Your task to perform on an android device: change text size in settings app Image 0: 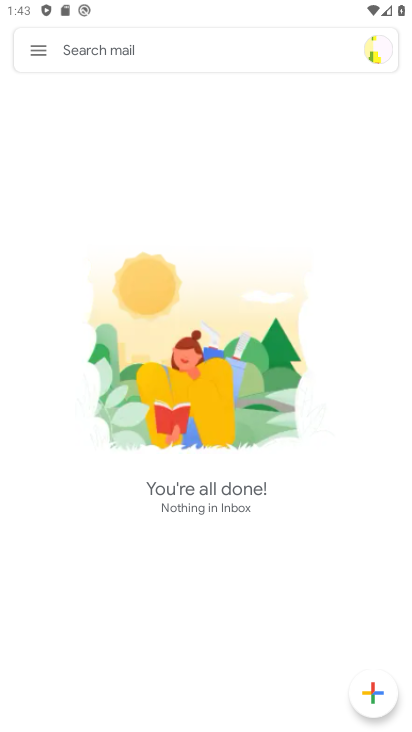
Step 0: press home button
Your task to perform on an android device: change text size in settings app Image 1: 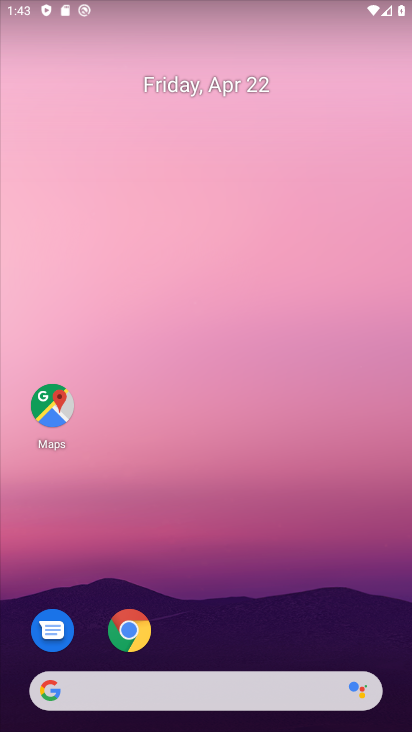
Step 1: drag from (193, 614) to (241, 141)
Your task to perform on an android device: change text size in settings app Image 2: 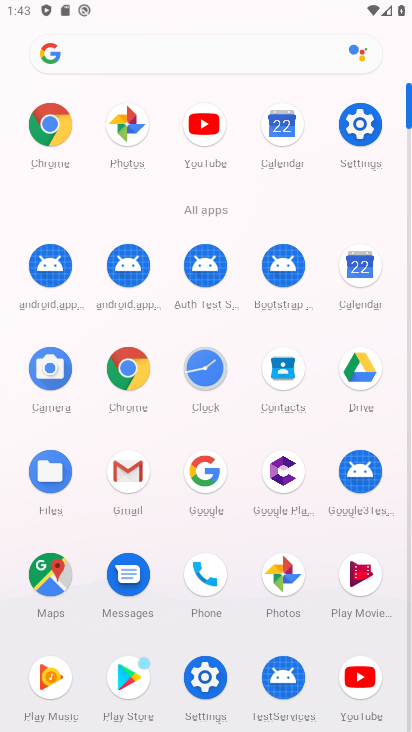
Step 2: click (370, 124)
Your task to perform on an android device: change text size in settings app Image 3: 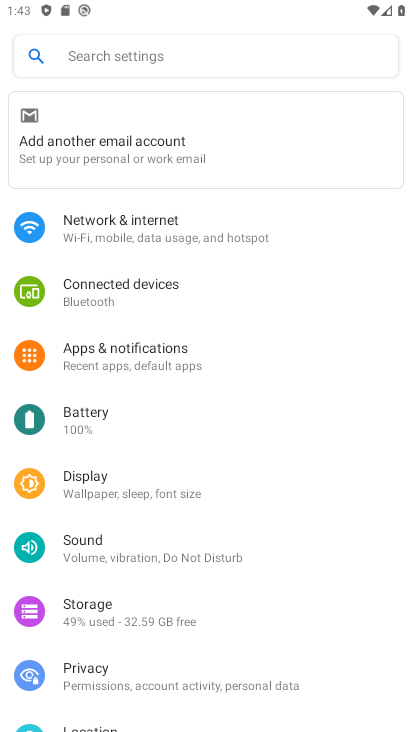
Step 3: click (148, 488)
Your task to perform on an android device: change text size in settings app Image 4: 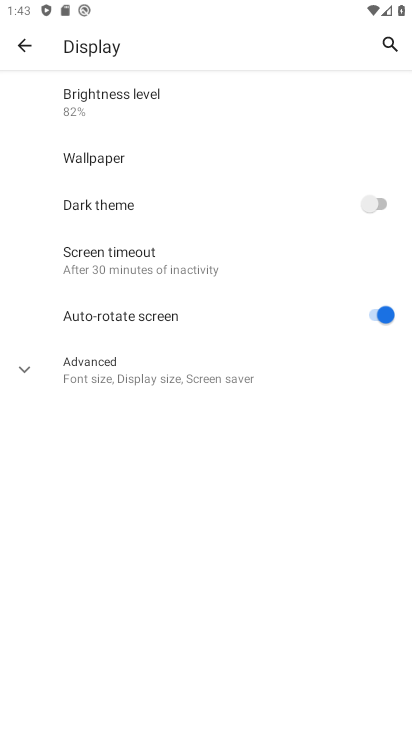
Step 4: click (23, 372)
Your task to perform on an android device: change text size in settings app Image 5: 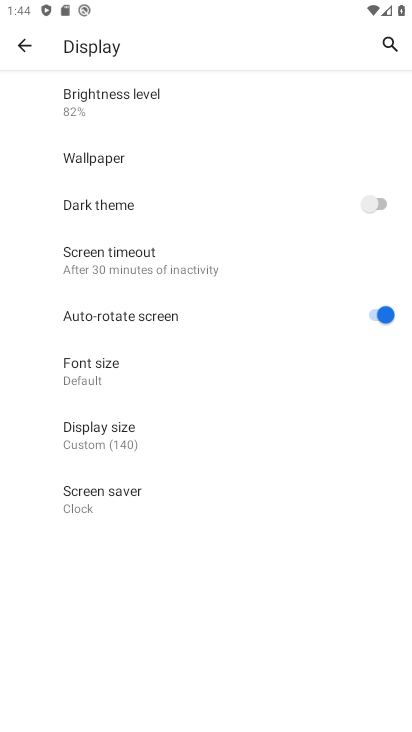
Step 5: click (112, 373)
Your task to perform on an android device: change text size in settings app Image 6: 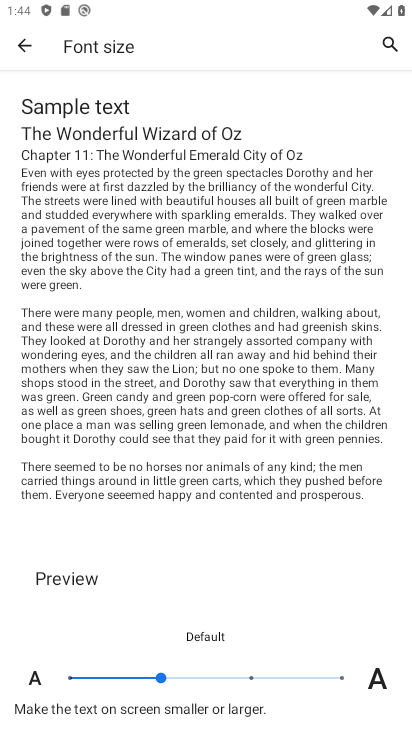
Step 6: click (69, 679)
Your task to perform on an android device: change text size in settings app Image 7: 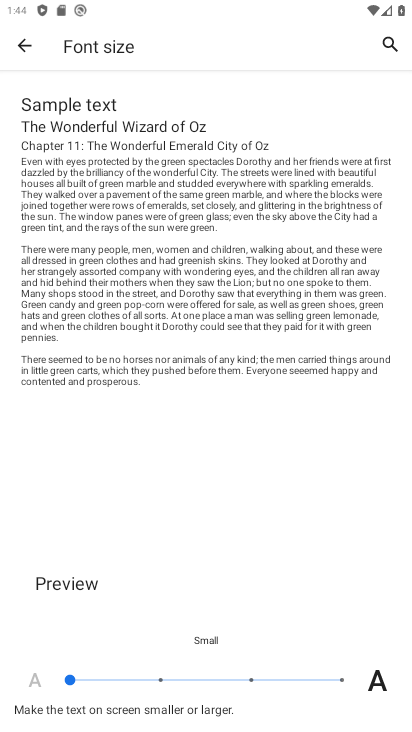
Step 7: task complete